Your task to perform on an android device: Go to wifi settings Image 0: 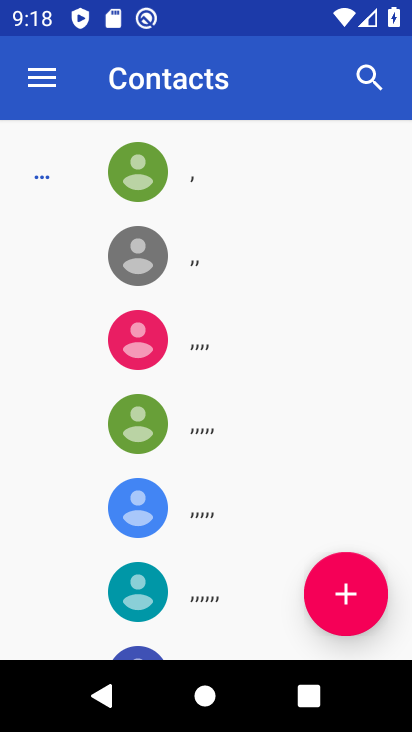
Step 0: press back button
Your task to perform on an android device: Go to wifi settings Image 1: 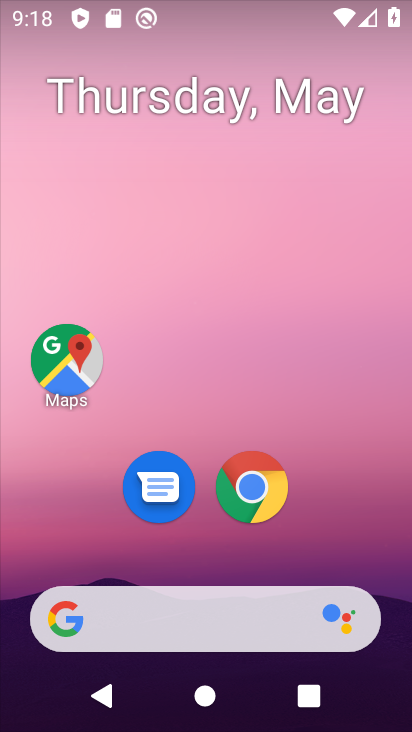
Step 1: drag from (138, 9) to (151, 533)
Your task to perform on an android device: Go to wifi settings Image 2: 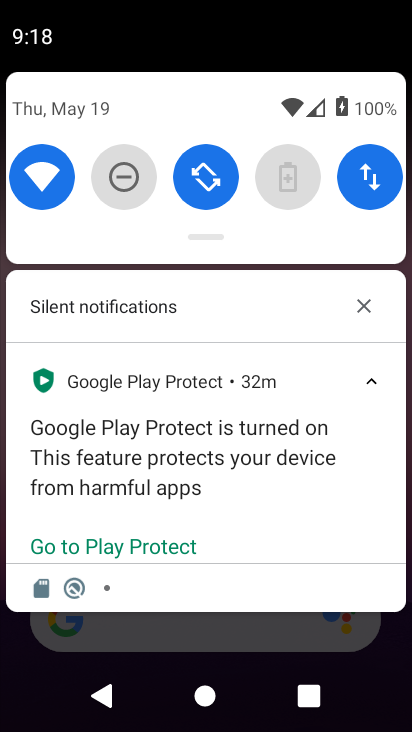
Step 2: click (32, 171)
Your task to perform on an android device: Go to wifi settings Image 3: 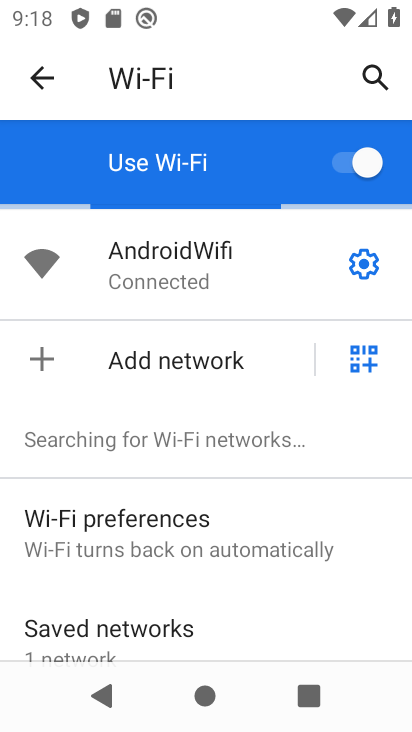
Step 3: task complete